Your task to perform on an android device: Go to privacy settings Image 0: 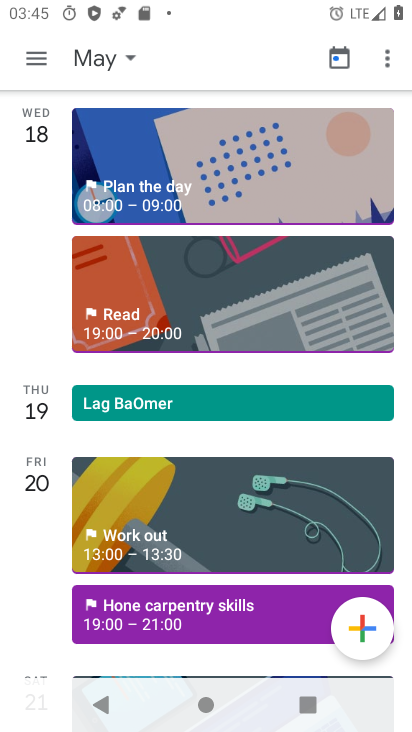
Step 0: press home button
Your task to perform on an android device: Go to privacy settings Image 1: 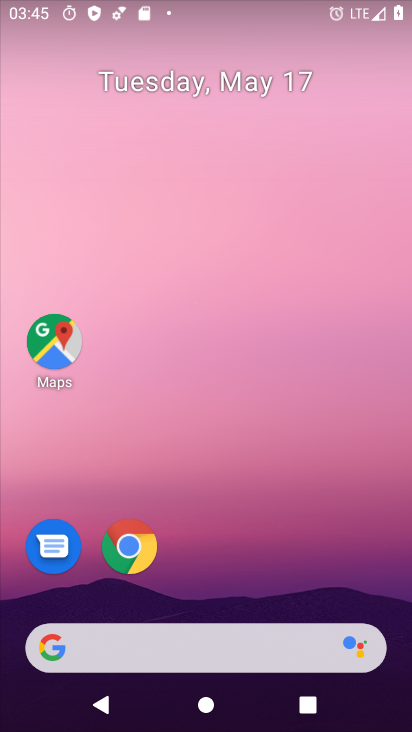
Step 1: drag from (300, 566) to (308, 146)
Your task to perform on an android device: Go to privacy settings Image 2: 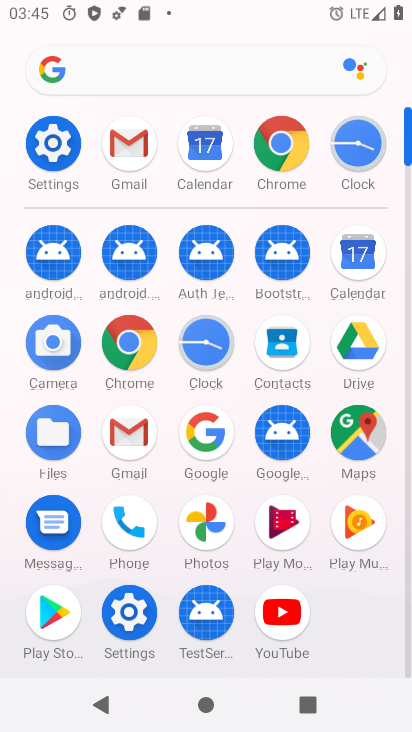
Step 2: click (128, 609)
Your task to perform on an android device: Go to privacy settings Image 3: 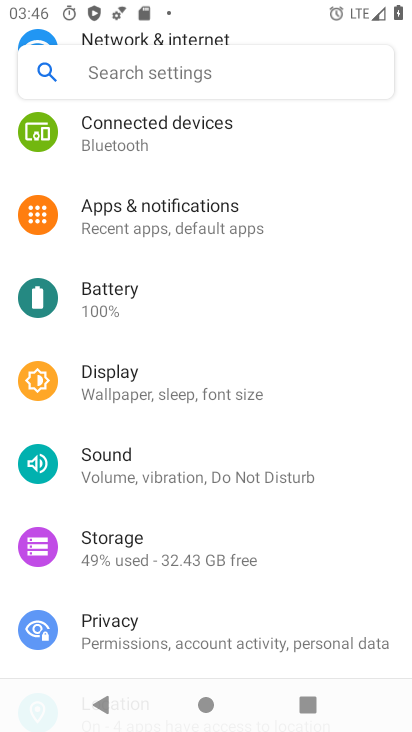
Step 3: click (128, 609)
Your task to perform on an android device: Go to privacy settings Image 4: 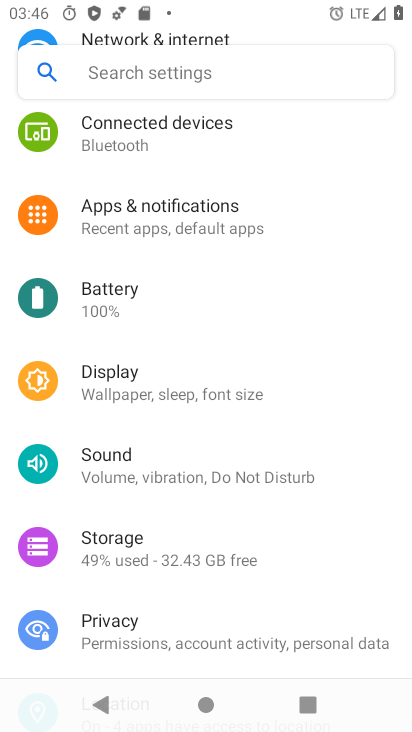
Step 4: click (129, 620)
Your task to perform on an android device: Go to privacy settings Image 5: 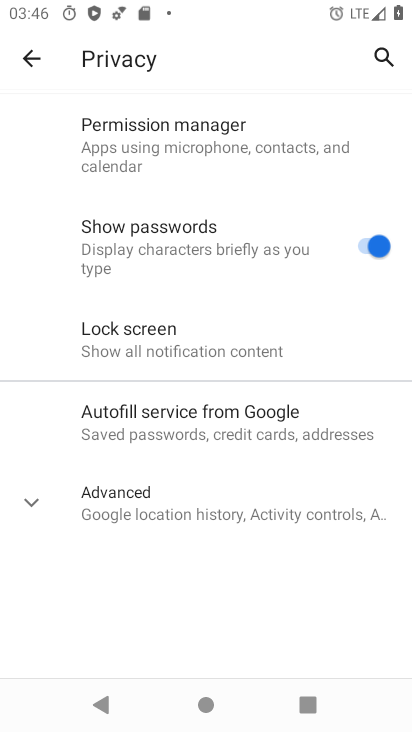
Step 5: task complete